Your task to perform on an android device: toggle priority inbox in the gmail app Image 0: 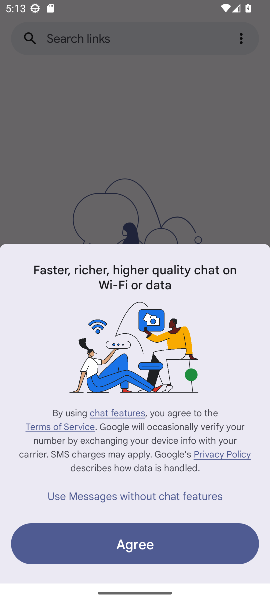
Step 0: press home button
Your task to perform on an android device: toggle priority inbox in the gmail app Image 1: 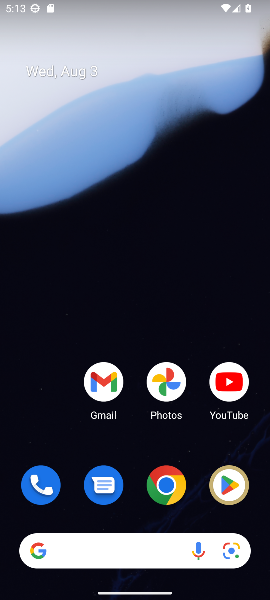
Step 1: click (114, 385)
Your task to perform on an android device: toggle priority inbox in the gmail app Image 2: 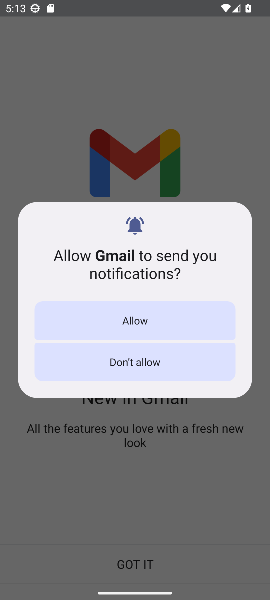
Step 2: click (140, 315)
Your task to perform on an android device: toggle priority inbox in the gmail app Image 3: 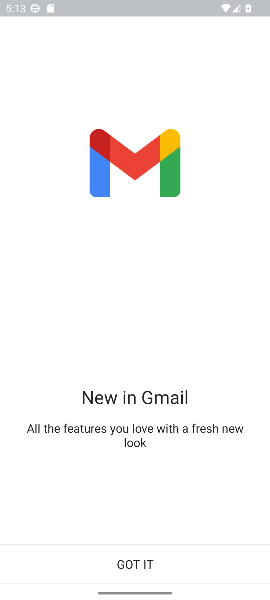
Step 3: click (123, 561)
Your task to perform on an android device: toggle priority inbox in the gmail app Image 4: 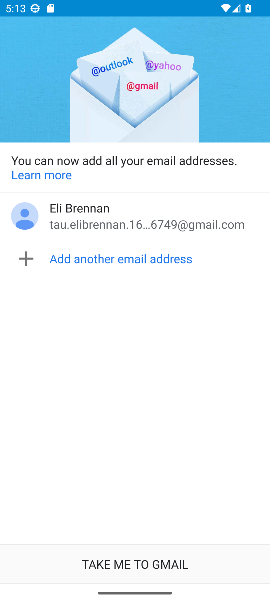
Step 4: click (113, 562)
Your task to perform on an android device: toggle priority inbox in the gmail app Image 5: 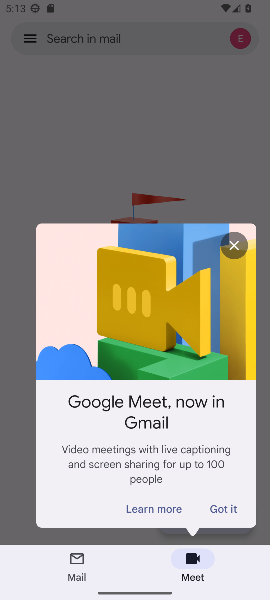
Step 5: click (237, 252)
Your task to perform on an android device: toggle priority inbox in the gmail app Image 6: 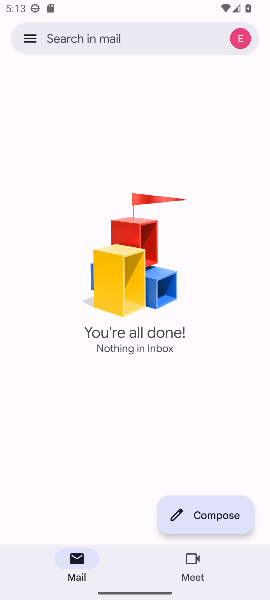
Step 6: click (30, 31)
Your task to perform on an android device: toggle priority inbox in the gmail app Image 7: 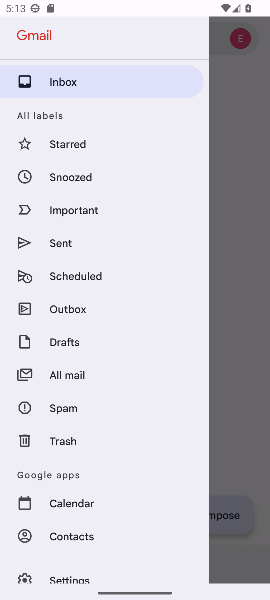
Step 7: drag from (94, 510) to (94, 339)
Your task to perform on an android device: toggle priority inbox in the gmail app Image 8: 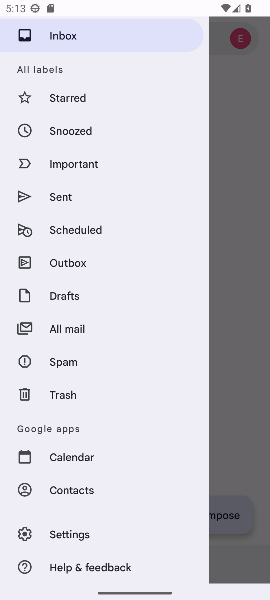
Step 8: click (65, 530)
Your task to perform on an android device: toggle priority inbox in the gmail app Image 9: 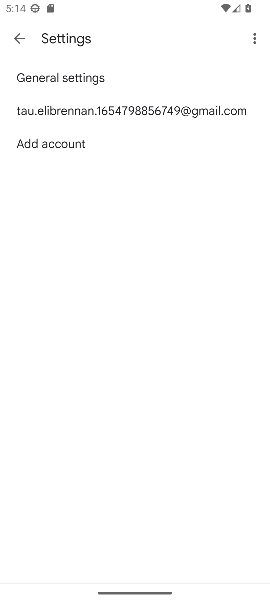
Step 9: click (70, 107)
Your task to perform on an android device: toggle priority inbox in the gmail app Image 10: 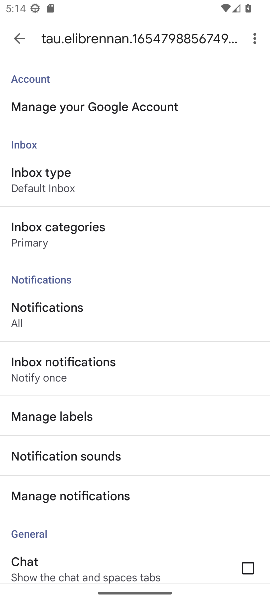
Step 10: click (61, 183)
Your task to perform on an android device: toggle priority inbox in the gmail app Image 11: 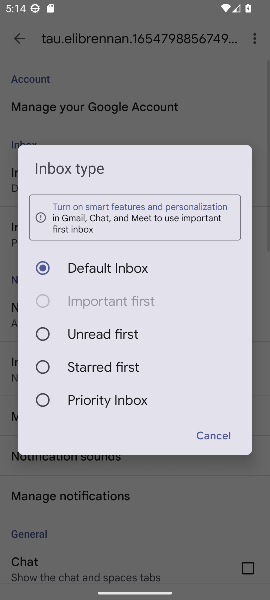
Step 11: click (91, 399)
Your task to perform on an android device: toggle priority inbox in the gmail app Image 12: 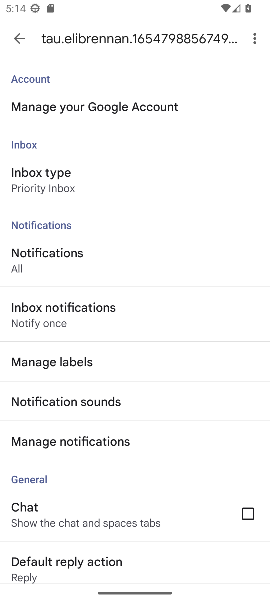
Step 12: task complete